Your task to perform on an android device: turn on wifi Image 0: 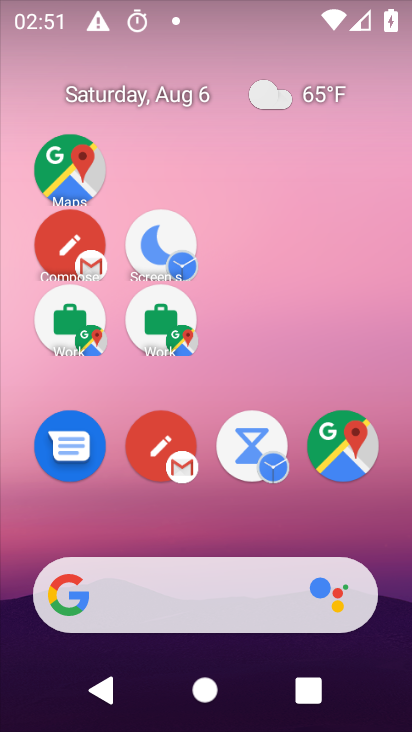
Step 0: drag from (295, 608) to (205, 240)
Your task to perform on an android device: turn on wifi Image 1: 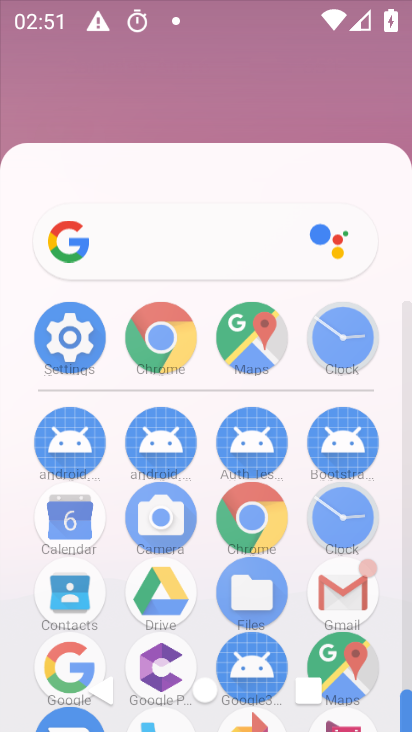
Step 1: drag from (225, 468) to (198, 93)
Your task to perform on an android device: turn on wifi Image 2: 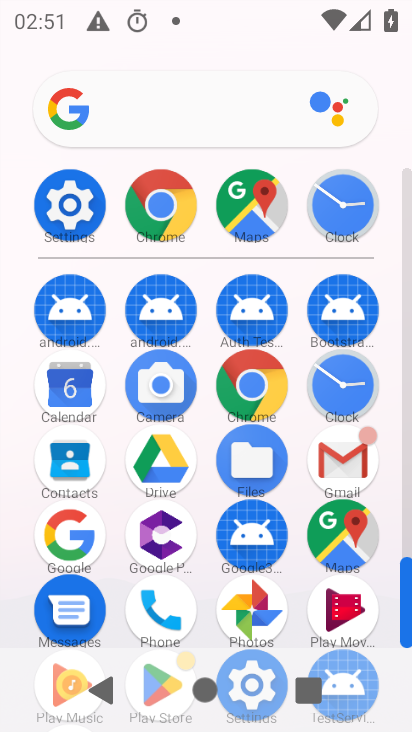
Step 2: click (69, 210)
Your task to perform on an android device: turn on wifi Image 3: 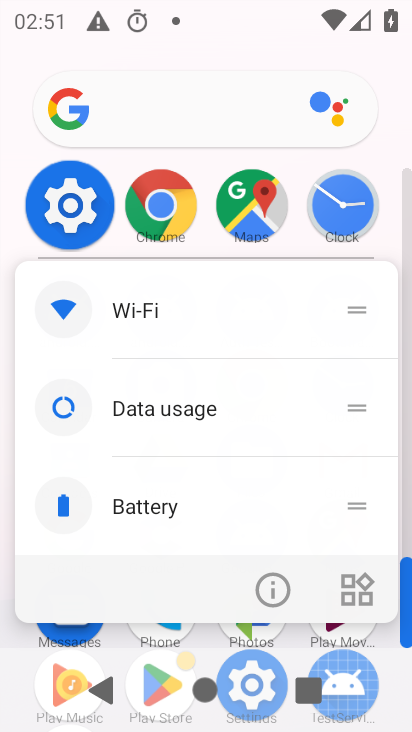
Step 3: click (69, 209)
Your task to perform on an android device: turn on wifi Image 4: 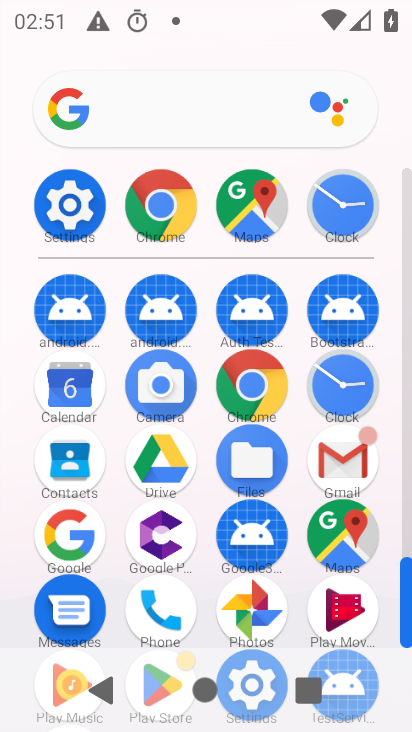
Step 4: click (69, 209)
Your task to perform on an android device: turn on wifi Image 5: 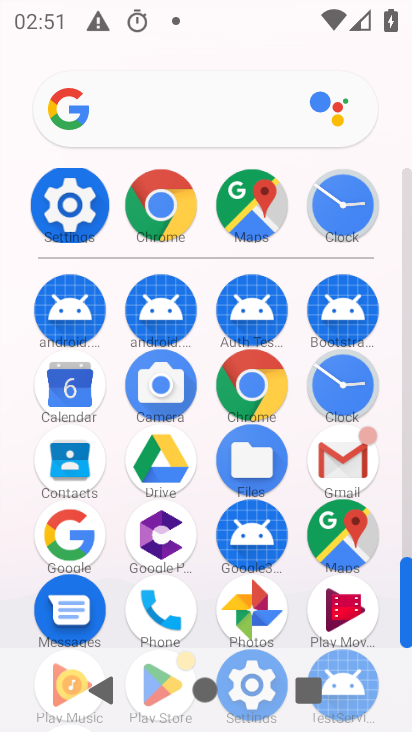
Step 5: click (69, 209)
Your task to perform on an android device: turn on wifi Image 6: 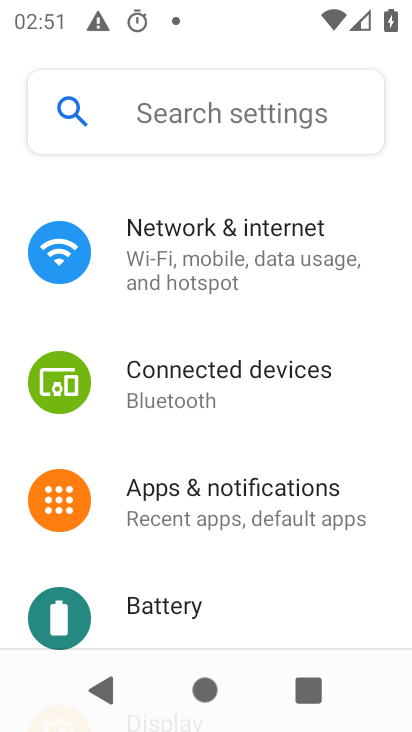
Step 6: click (77, 203)
Your task to perform on an android device: turn on wifi Image 7: 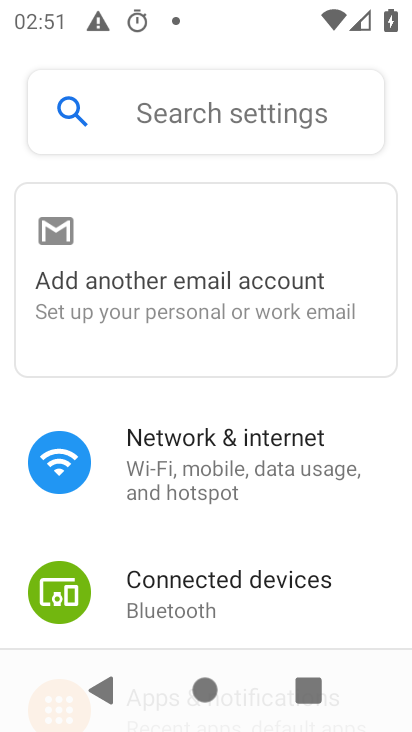
Step 7: click (75, 168)
Your task to perform on an android device: turn on wifi Image 8: 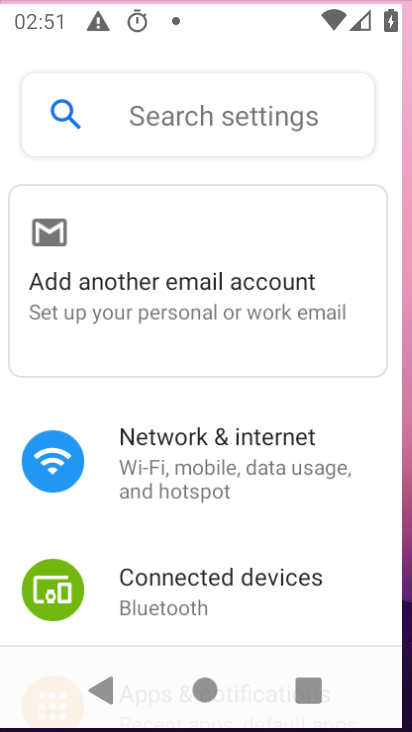
Step 8: click (220, 436)
Your task to perform on an android device: turn on wifi Image 9: 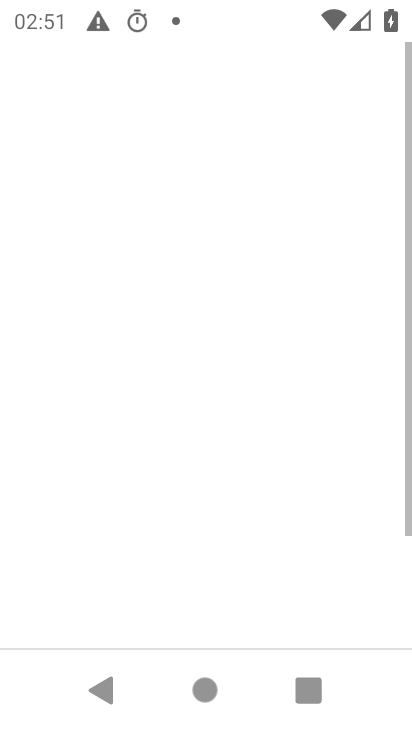
Step 9: press back button
Your task to perform on an android device: turn on wifi Image 10: 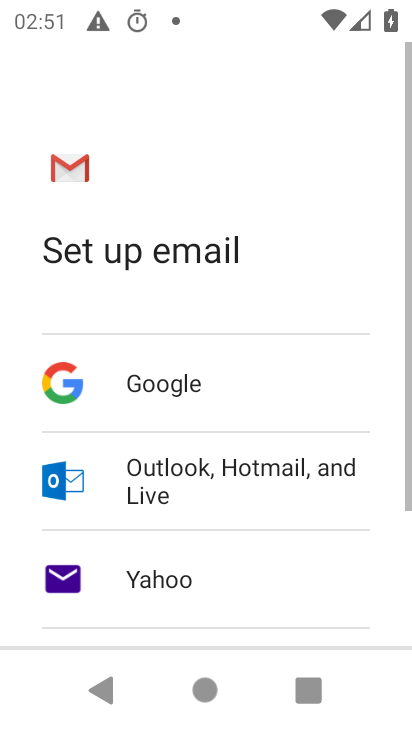
Step 10: press back button
Your task to perform on an android device: turn on wifi Image 11: 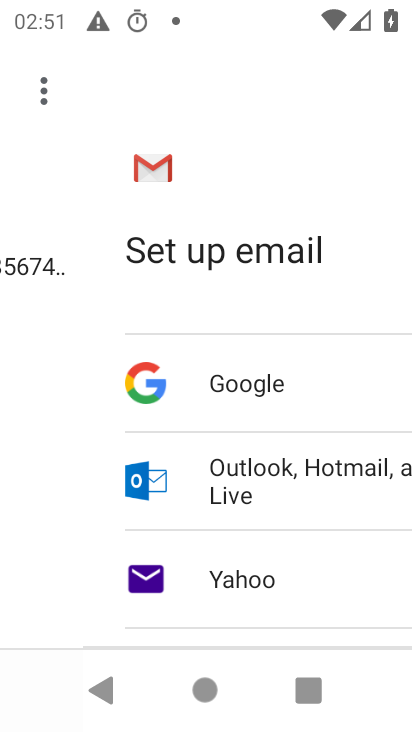
Step 11: press back button
Your task to perform on an android device: turn on wifi Image 12: 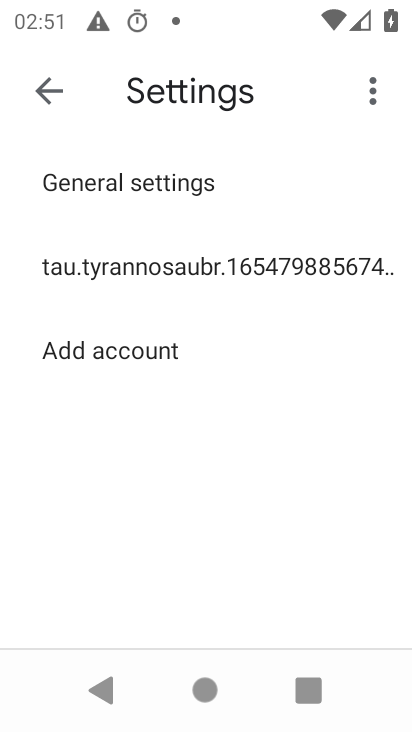
Step 12: press back button
Your task to perform on an android device: turn on wifi Image 13: 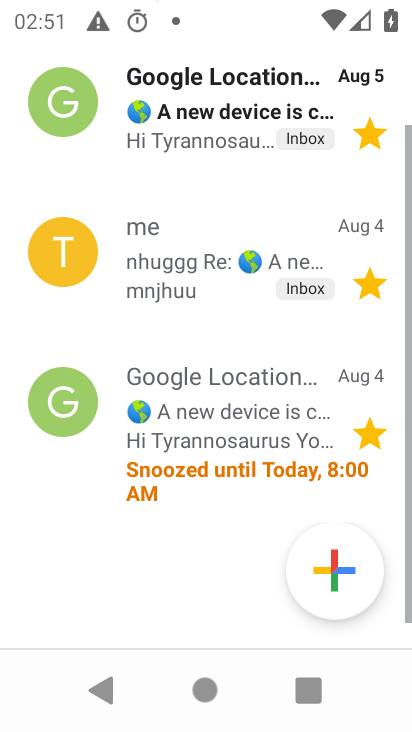
Step 13: click (45, 91)
Your task to perform on an android device: turn on wifi Image 14: 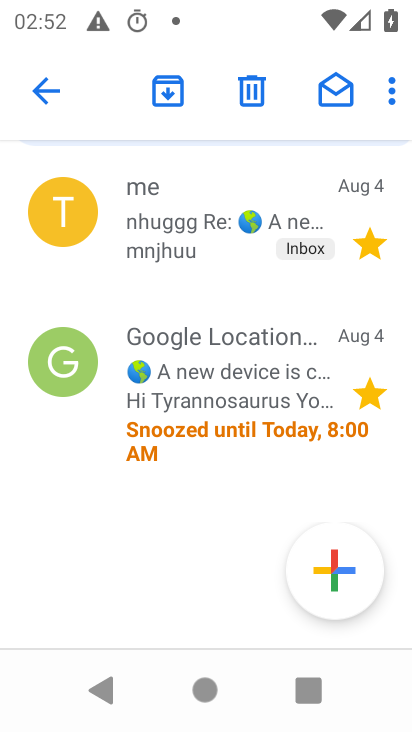
Step 14: click (36, 94)
Your task to perform on an android device: turn on wifi Image 15: 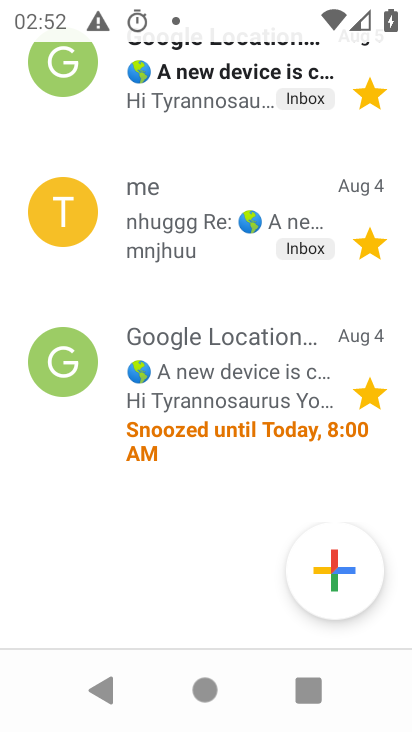
Step 15: drag from (203, 173) to (228, 513)
Your task to perform on an android device: turn on wifi Image 16: 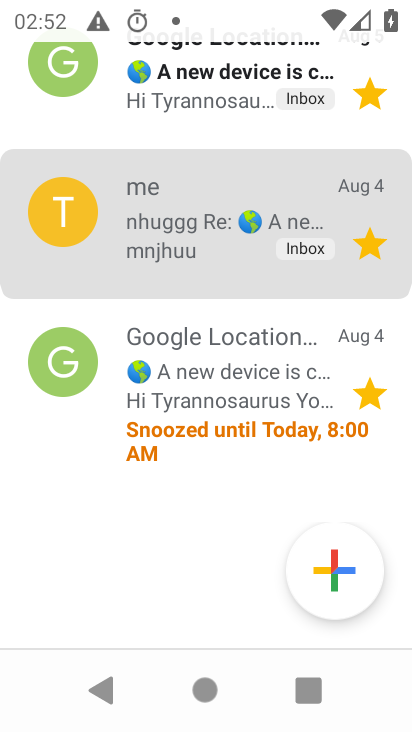
Step 16: drag from (181, 251) to (228, 540)
Your task to perform on an android device: turn on wifi Image 17: 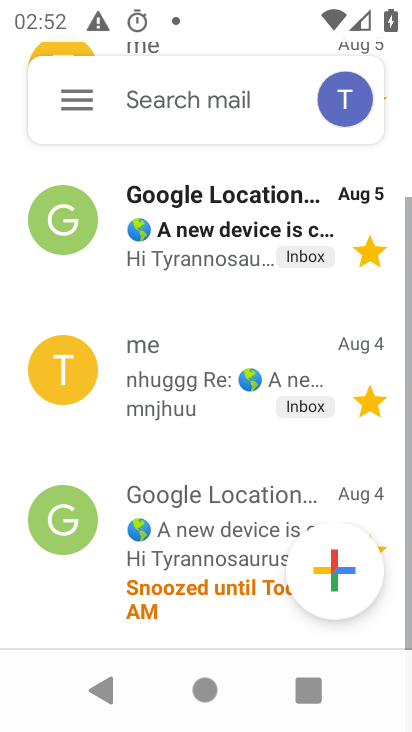
Step 17: press back button
Your task to perform on an android device: turn on wifi Image 18: 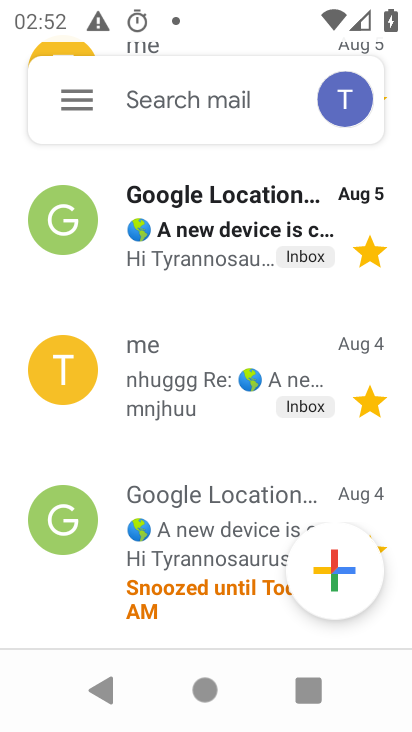
Step 18: press back button
Your task to perform on an android device: turn on wifi Image 19: 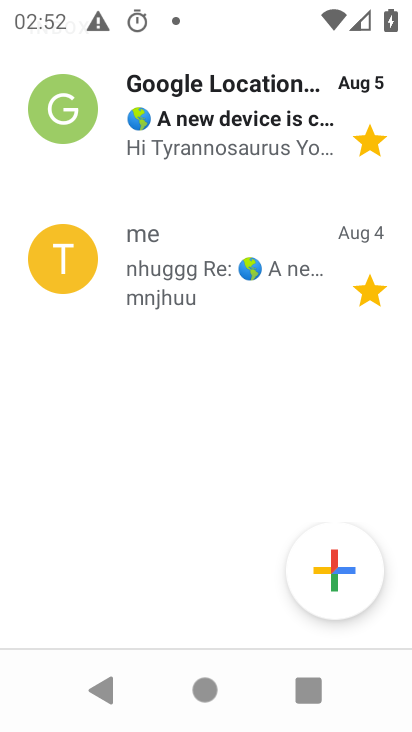
Step 19: press back button
Your task to perform on an android device: turn on wifi Image 20: 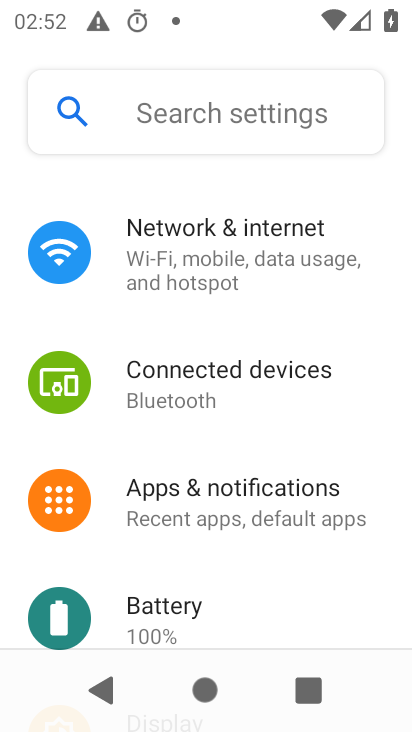
Step 20: press back button
Your task to perform on an android device: turn on wifi Image 21: 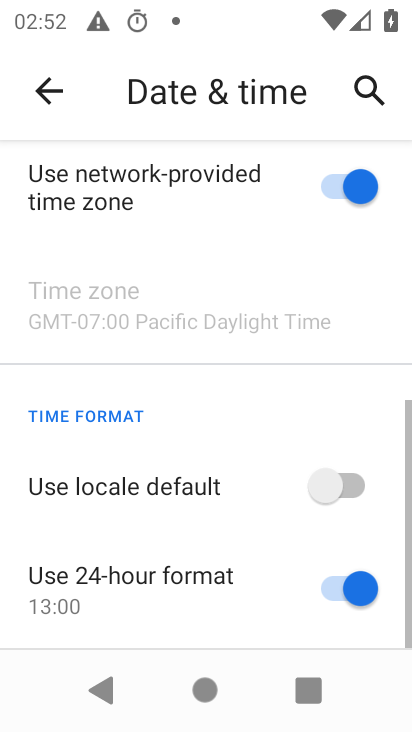
Step 21: press back button
Your task to perform on an android device: turn on wifi Image 22: 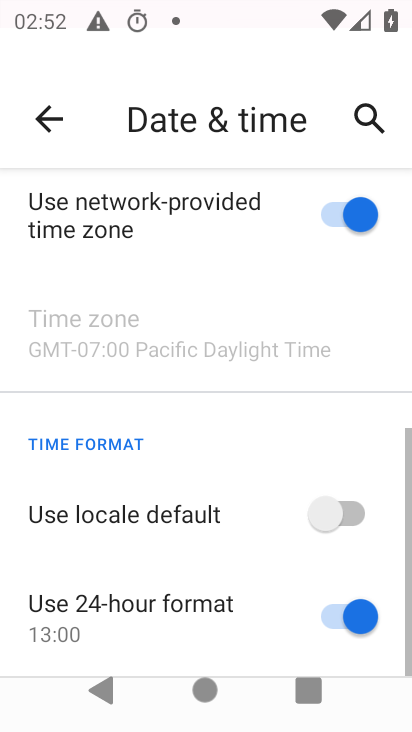
Step 22: press home button
Your task to perform on an android device: turn on wifi Image 23: 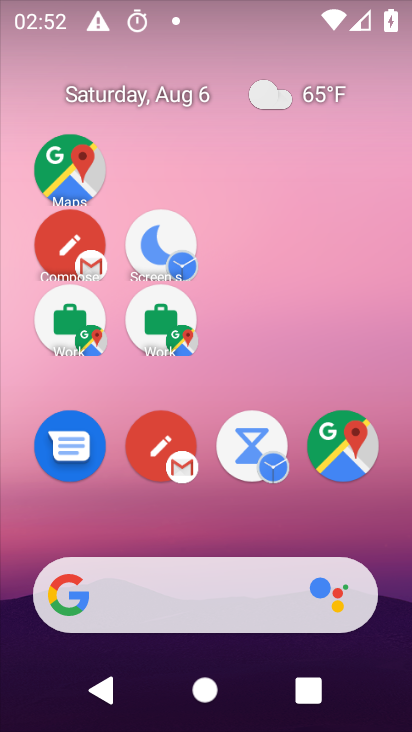
Step 23: click (45, 116)
Your task to perform on an android device: turn on wifi Image 24: 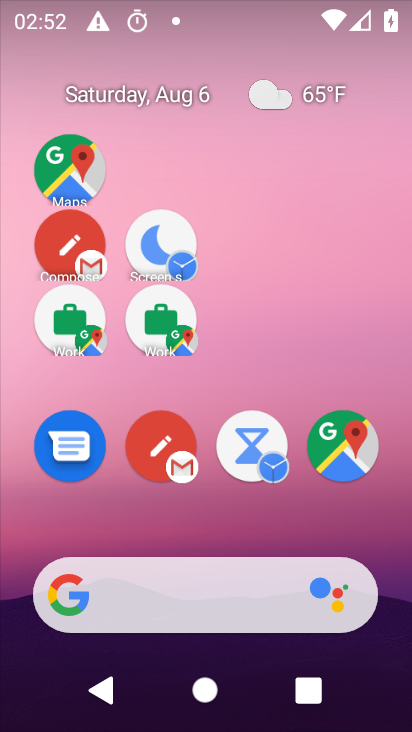
Step 24: drag from (198, 606) to (245, 185)
Your task to perform on an android device: turn on wifi Image 25: 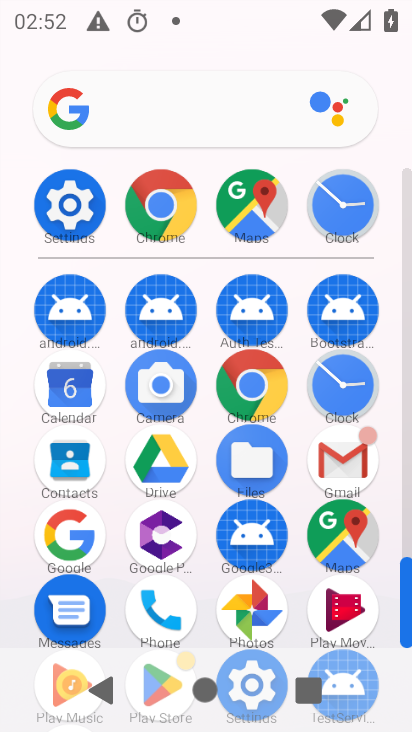
Step 25: click (66, 217)
Your task to perform on an android device: turn on wifi Image 26: 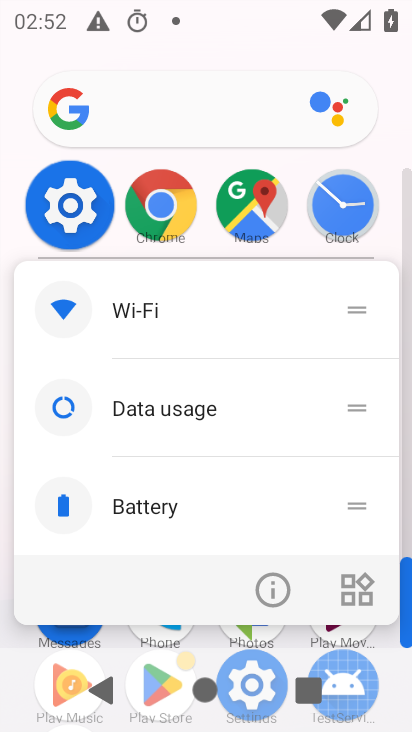
Step 26: click (66, 217)
Your task to perform on an android device: turn on wifi Image 27: 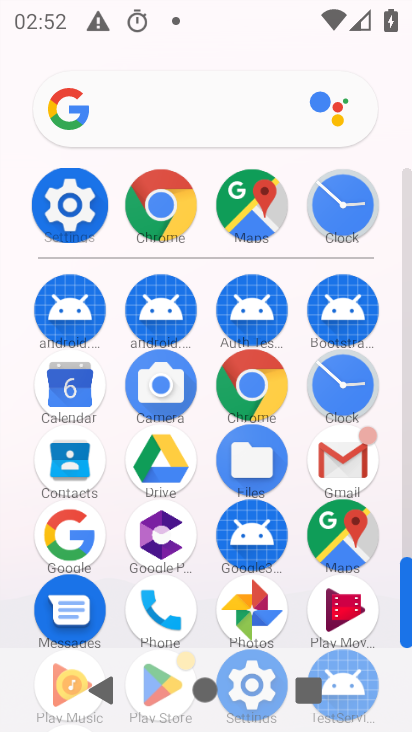
Step 27: click (132, 301)
Your task to perform on an android device: turn on wifi Image 28: 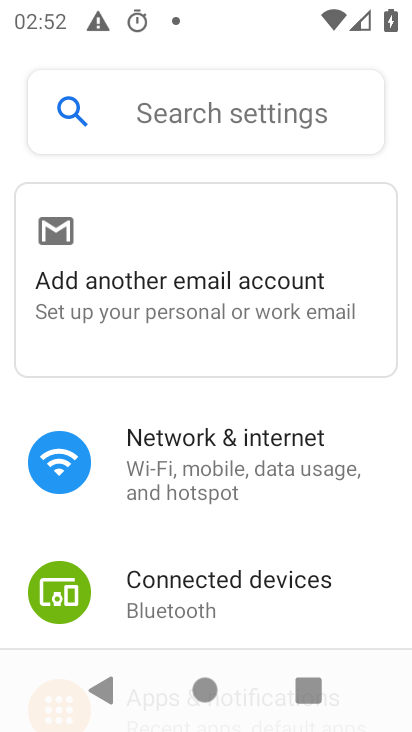
Step 28: task complete